Your task to perform on an android device: Go to sound settings Image 0: 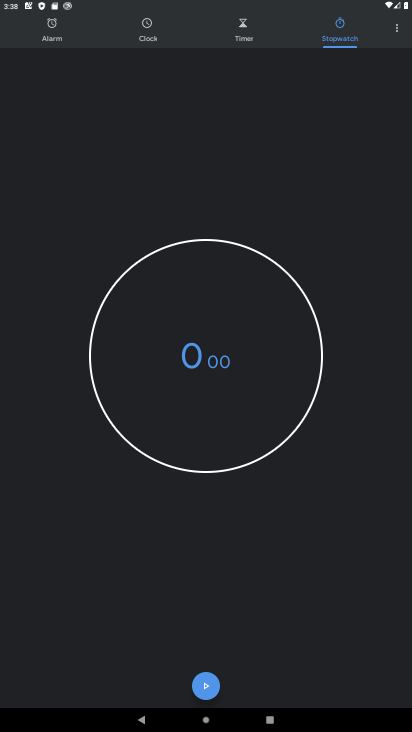
Step 0: press home button
Your task to perform on an android device: Go to sound settings Image 1: 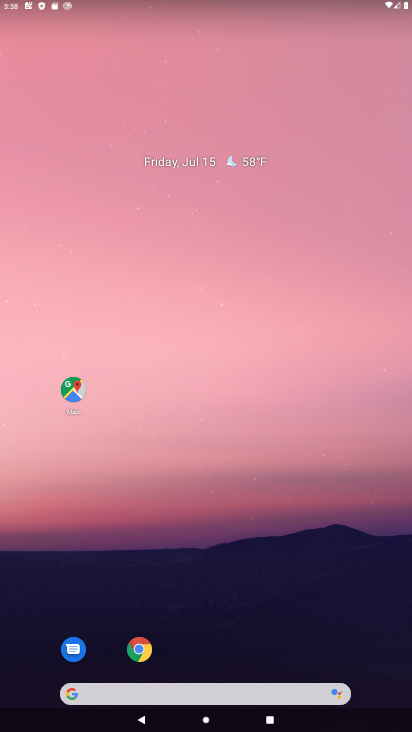
Step 1: drag from (224, 720) to (239, 110)
Your task to perform on an android device: Go to sound settings Image 2: 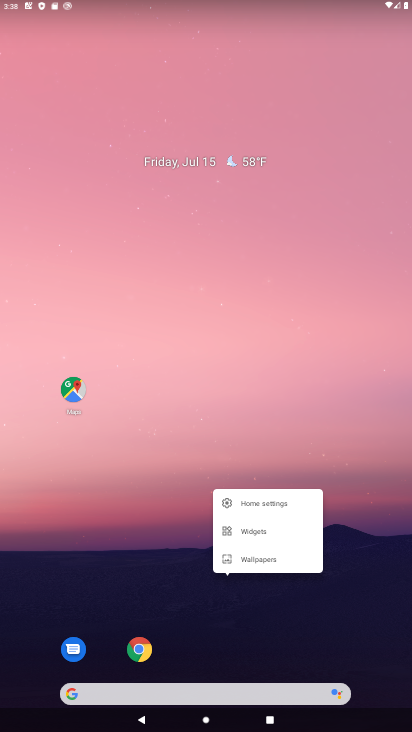
Step 2: click (267, 307)
Your task to perform on an android device: Go to sound settings Image 3: 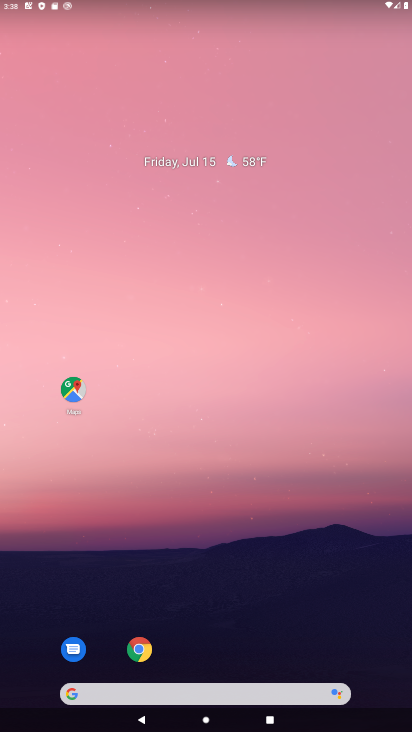
Step 3: drag from (229, 667) to (230, 326)
Your task to perform on an android device: Go to sound settings Image 4: 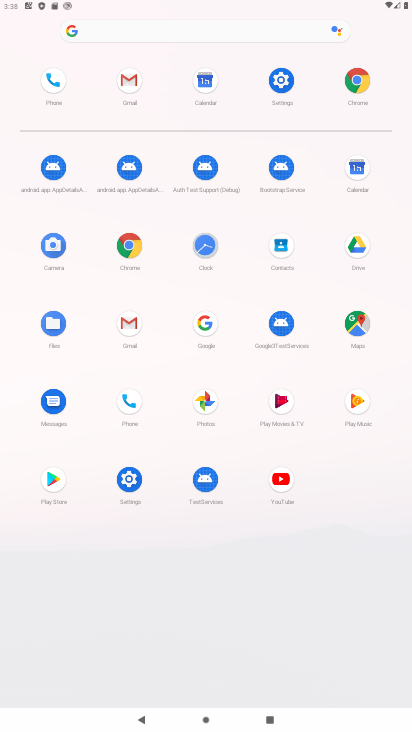
Step 4: click (285, 71)
Your task to perform on an android device: Go to sound settings Image 5: 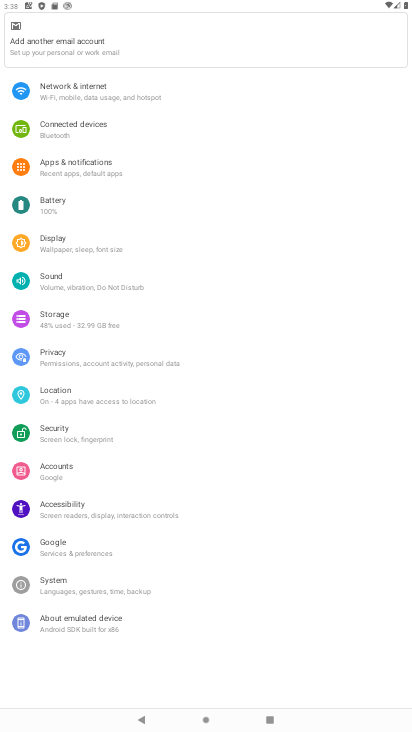
Step 5: click (65, 283)
Your task to perform on an android device: Go to sound settings Image 6: 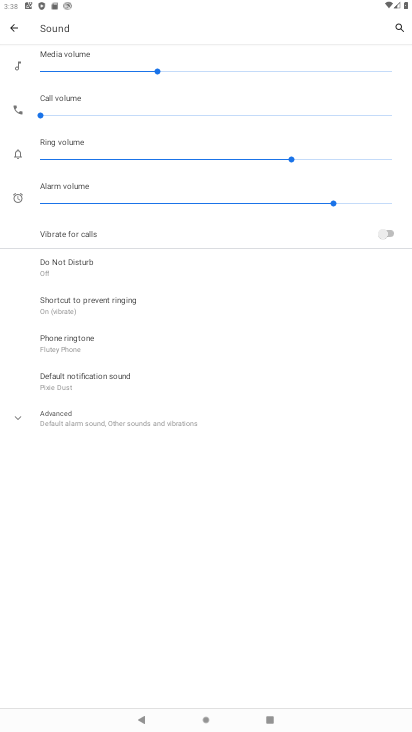
Step 6: task complete